Your task to perform on an android device: empty trash in google photos Image 0: 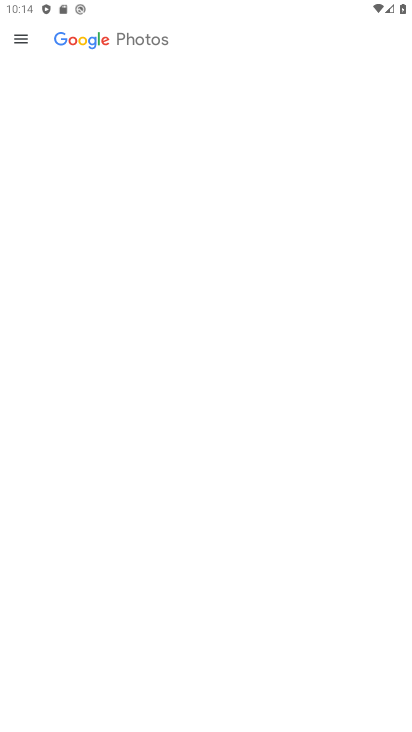
Step 0: press home button
Your task to perform on an android device: empty trash in google photos Image 1: 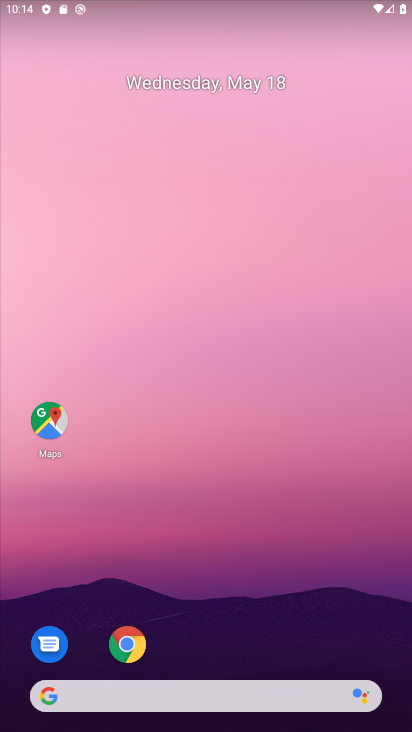
Step 1: drag from (338, 627) to (278, 14)
Your task to perform on an android device: empty trash in google photos Image 2: 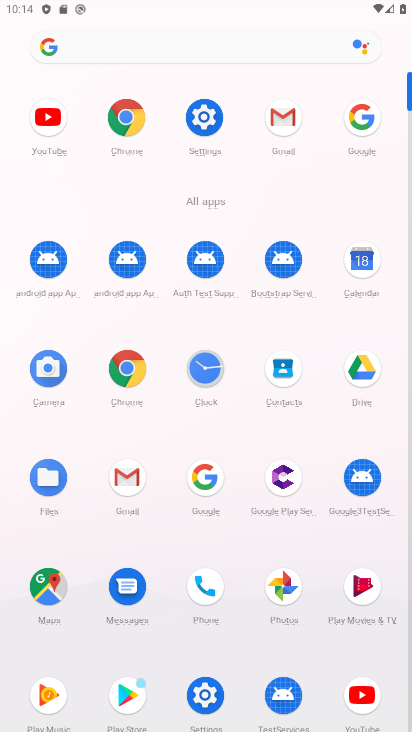
Step 2: click (277, 593)
Your task to perform on an android device: empty trash in google photos Image 3: 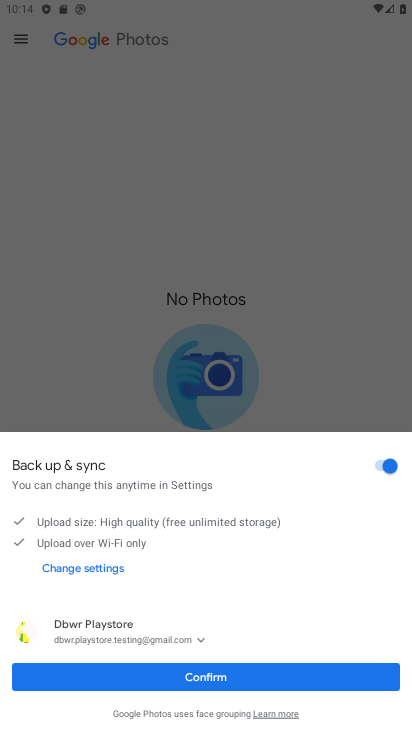
Step 3: click (231, 692)
Your task to perform on an android device: empty trash in google photos Image 4: 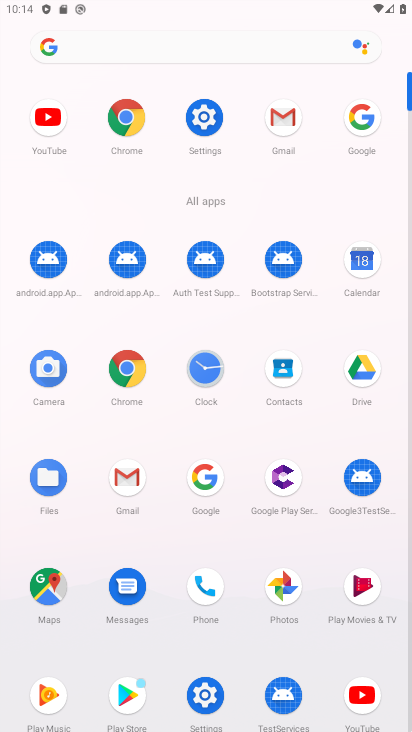
Step 4: click (282, 590)
Your task to perform on an android device: empty trash in google photos Image 5: 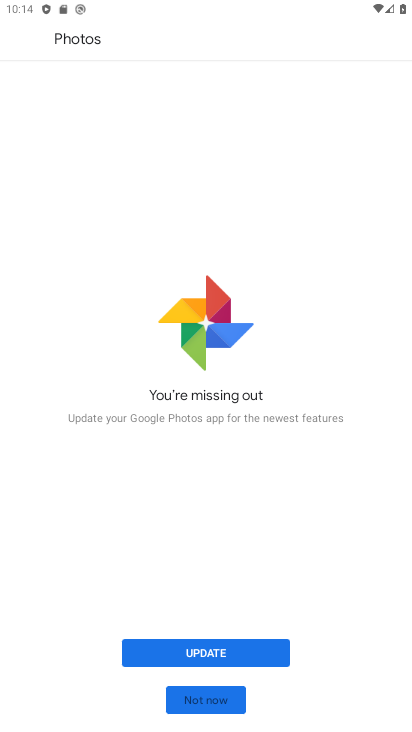
Step 5: click (184, 652)
Your task to perform on an android device: empty trash in google photos Image 6: 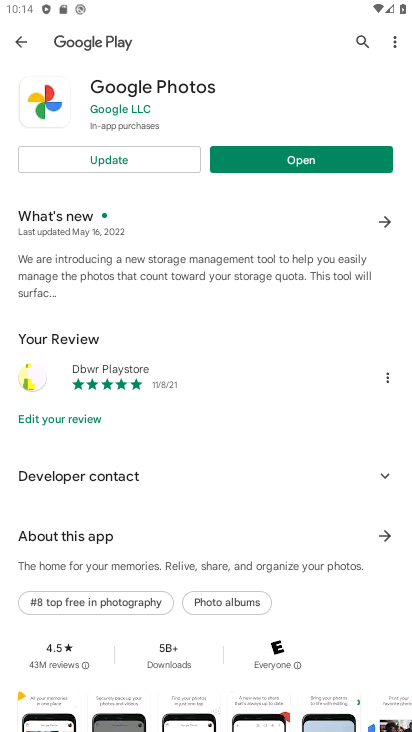
Step 6: click (142, 167)
Your task to perform on an android device: empty trash in google photos Image 7: 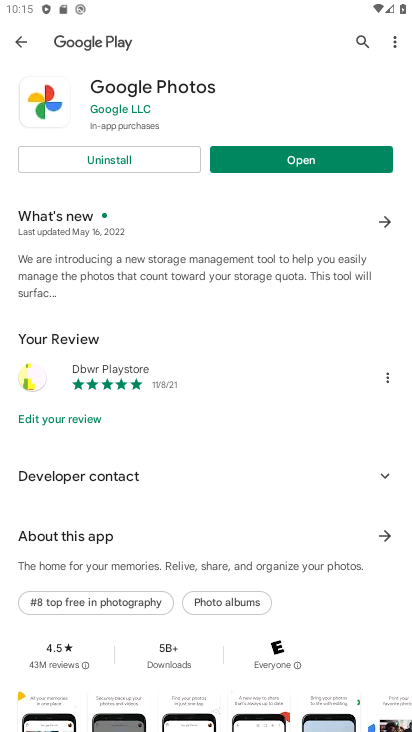
Step 7: click (267, 153)
Your task to perform on an android device: empty trash in google photos Image 8: 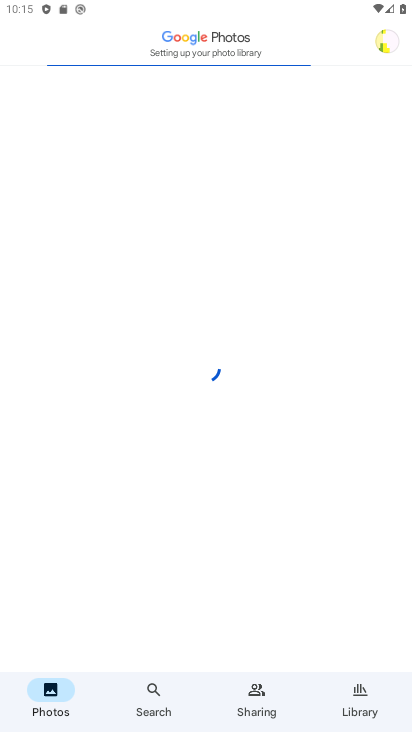
Step 8: click (355, 698)
Your task to perform on an android device: empty trash in google photos Image 9: 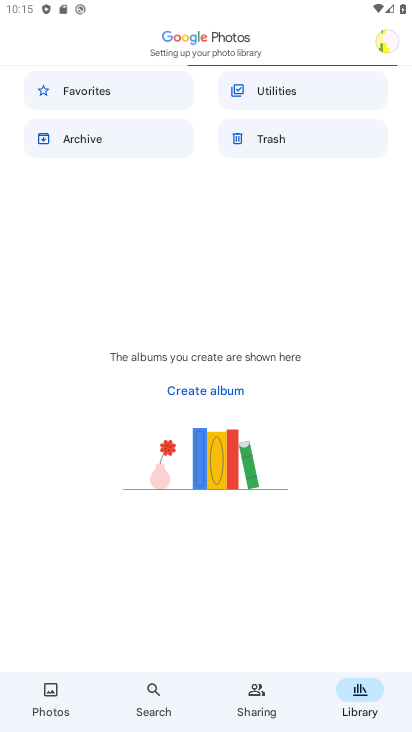
Step 9: click (294, 143)
Your task to perform on an android device: empty trash in google photos Image 10: 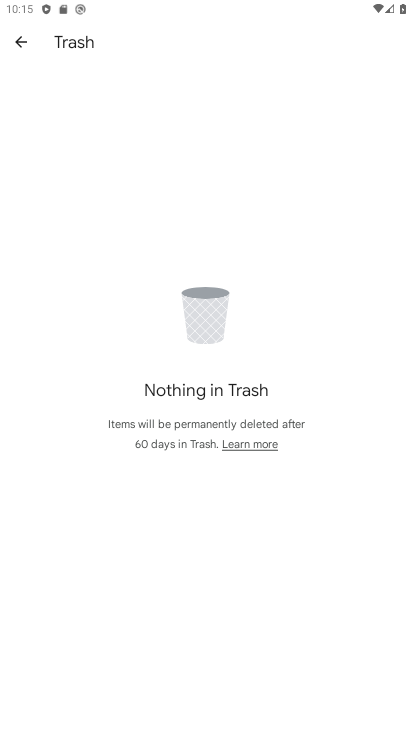
Step 10: task complete